Your task to perform on an android device: Search for vegetarian restaurants on Maps Image 0: 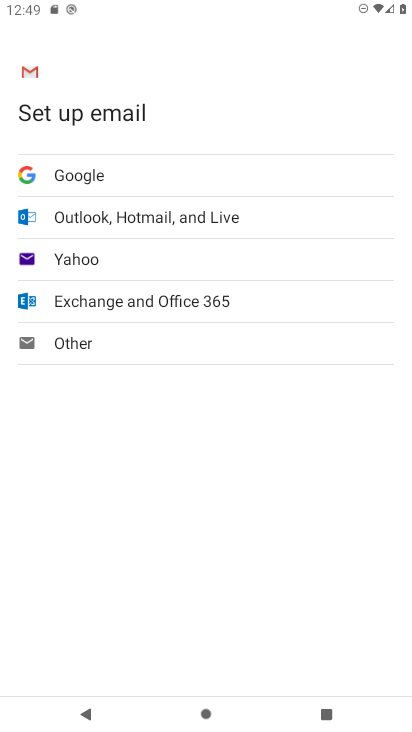
Step 0: press home button
Your task to perform on an android device: Search for vegetarian restaurants on Maps Image 1: 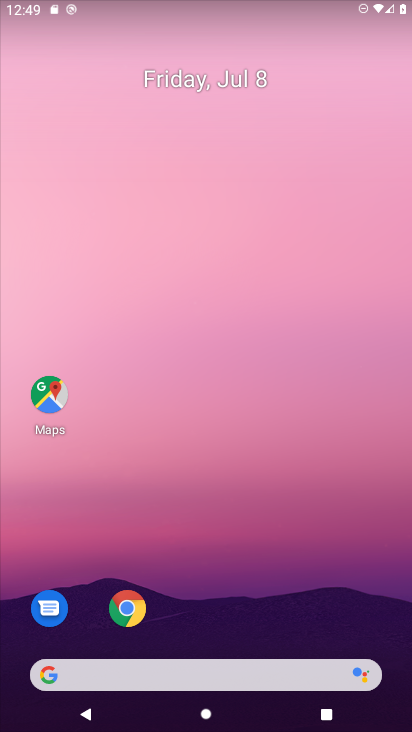
Step 1: drag from (226, 625) to (226, 194)
Your task to perform on an android device: Search for vegetarian restaurants on Maps Image 2: 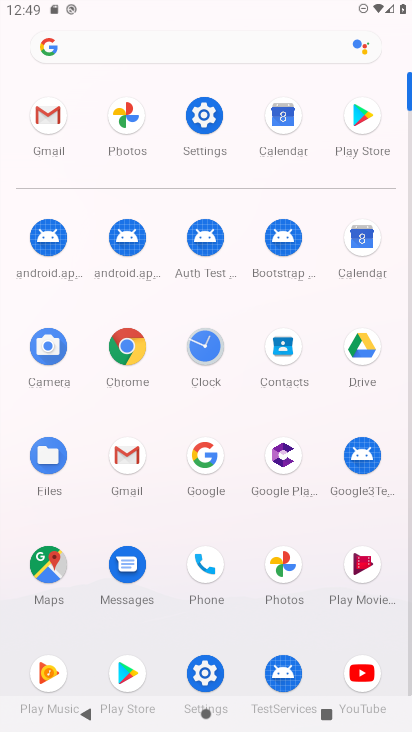
Step 2: click (213, 141)
Your task to perform on an android device: Search for vegetarian restaurants on Maps Image 3: 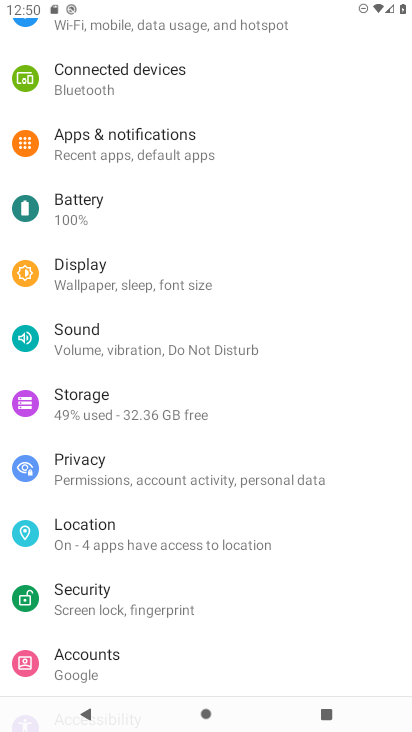
Step 3: press home button
Your task to perform on an android device: Search for vegetarian restaurants on Maps Image 4: 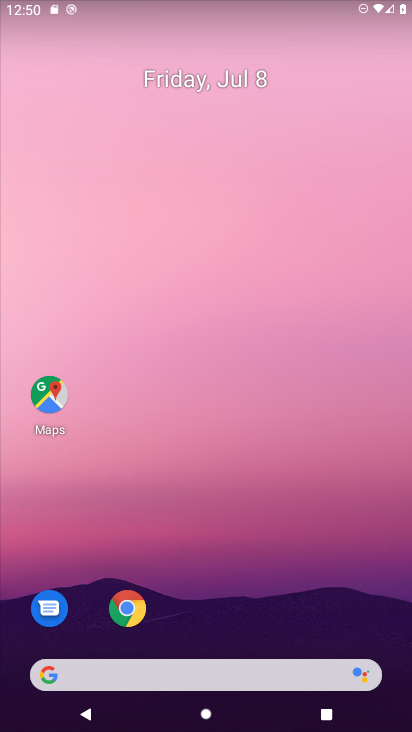
Step 4: drag from (263, 592) to (269, 236)
Your task to perform on an android device: Search for vegetarian restaurants on Maps Image 5: 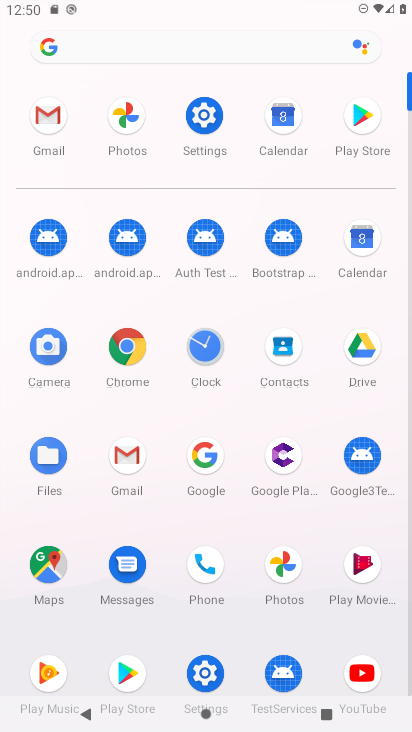
Step 5: click (47, 565)
Your task to perform on an android device: Search for vegetarian restaurants on Maps Image 6: 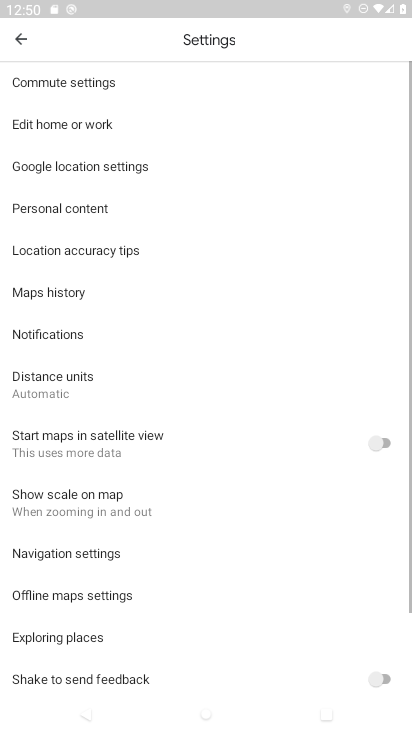
Step 6: click (24, 48)
Your task to perform on an android device: Search for vegetarian restaurants on Maps Image 7: 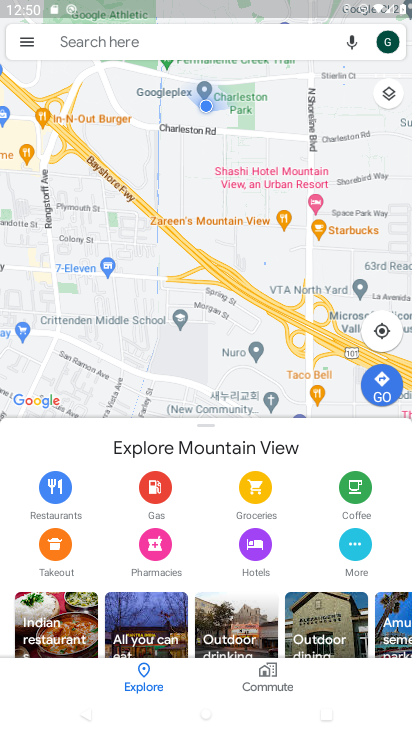
Step 7: click (130, 34)
Your task to perform on an android device: Search for vegetarian restaurants on Maps Image 8: 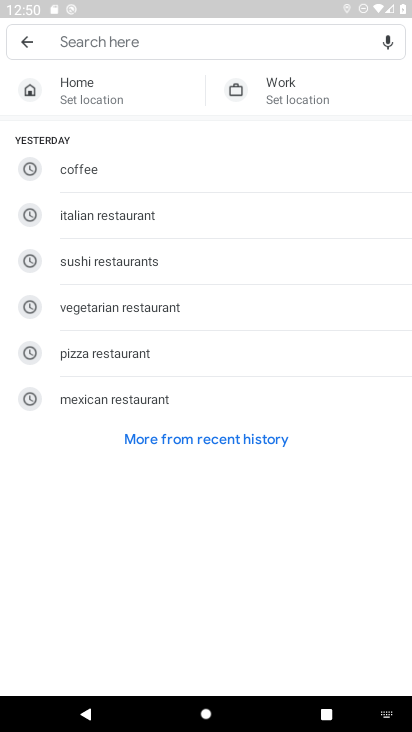
Step 8: type "vegetarian"
Your task to perform on an android device: Search for vegetarian restaurants on Maps Image 9: 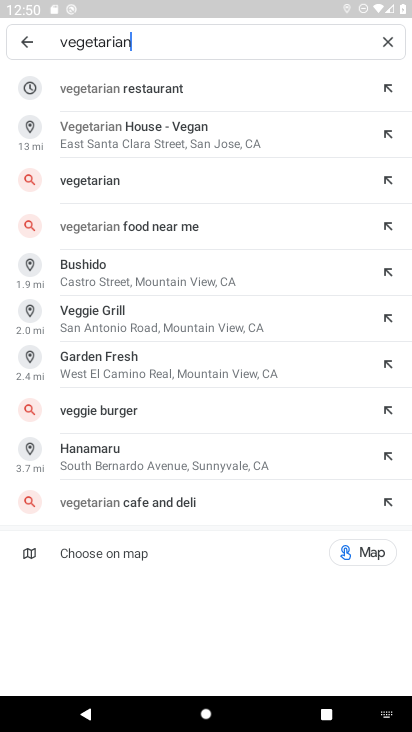
Step 9: click (221, 160)
Your task to perform on an android device: Search for vegetarian restaurants on Maps Image 10: 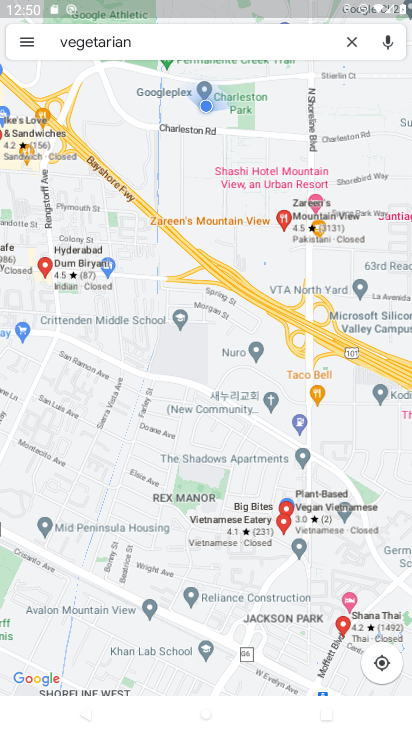
Step 10: task complete